Your task to perform on an android device: What's on my calendar today? Image 0: 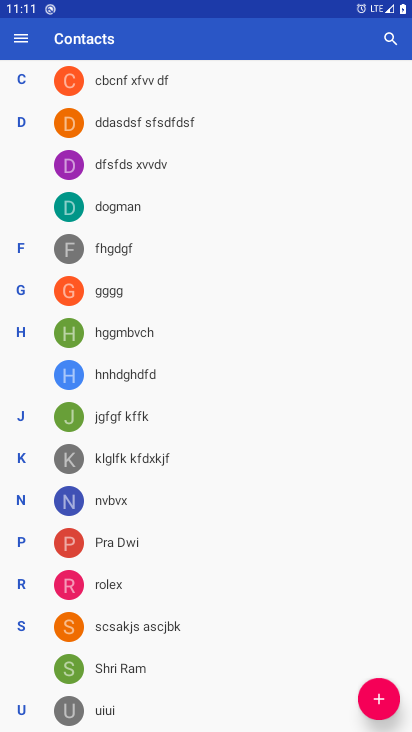
Step 0: press home button
Your task to perform on an android device: What's on my calendar today? Image 1: 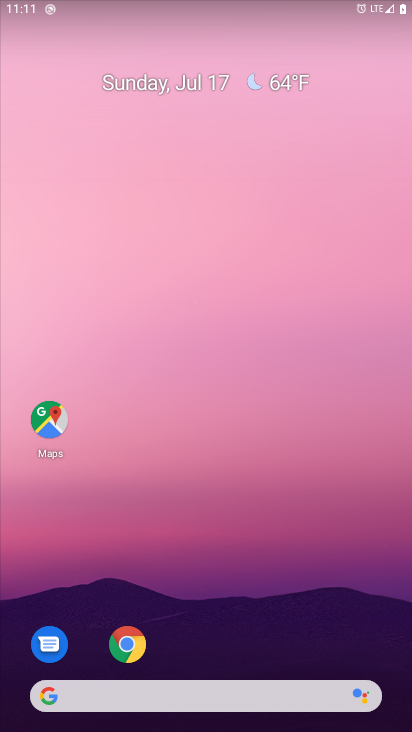
Step 1: drag from (287, 652) to (250, 157)
Your task to perform on an android device: What's on my calendar today? Image 2: 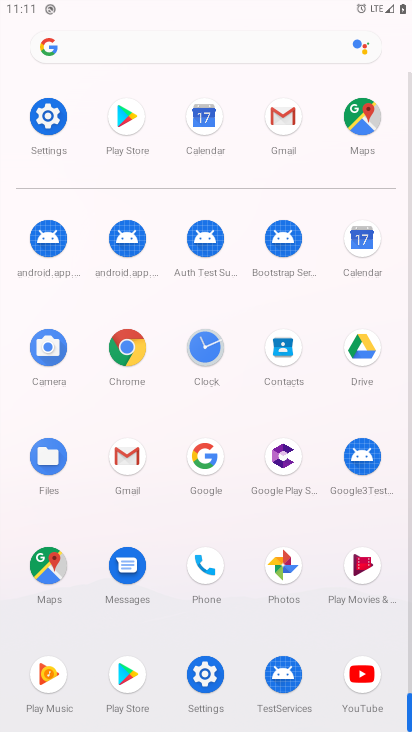
Step 2: click (365, 242)
Your task to perform on an android device: What's on my calendar today? Image 3: 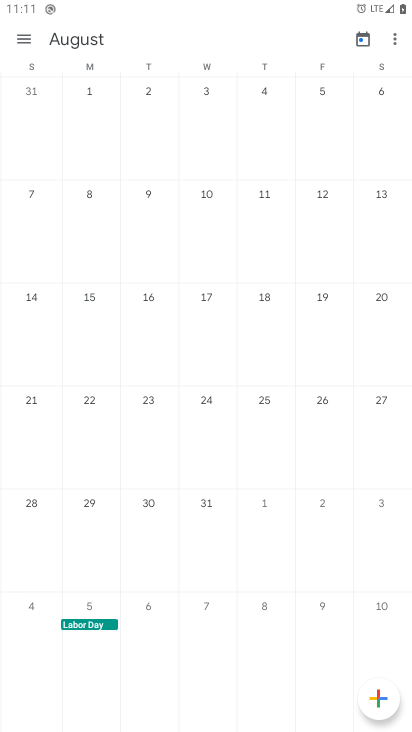
Step 3: drag from (99, 152) to (411, 187)
Your task to perform on an android device: What's on my calendar today? Image 4: 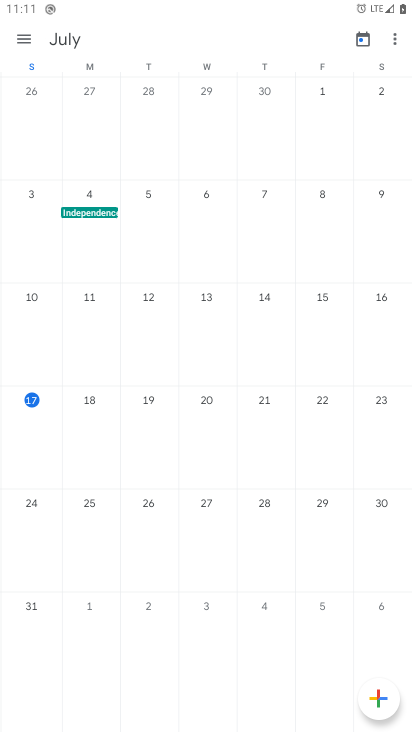
Step 4: click (84, 402)
Your task to perform on an android device: What's on my calendar today? Image 5: 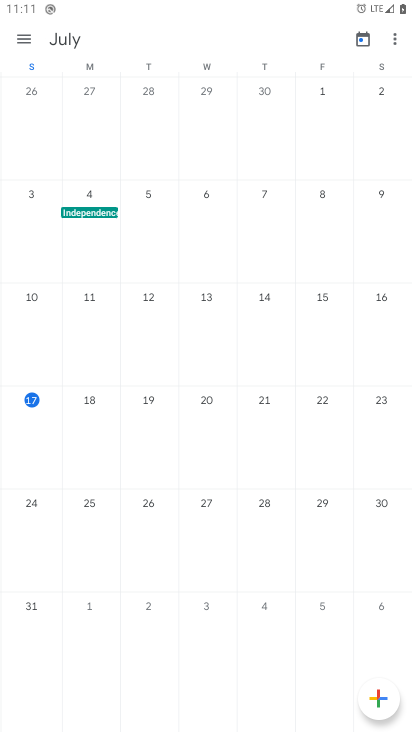
Step 5: click (84, 402)
Your task to perform on an android device: What's on my calendar today? Image 6: 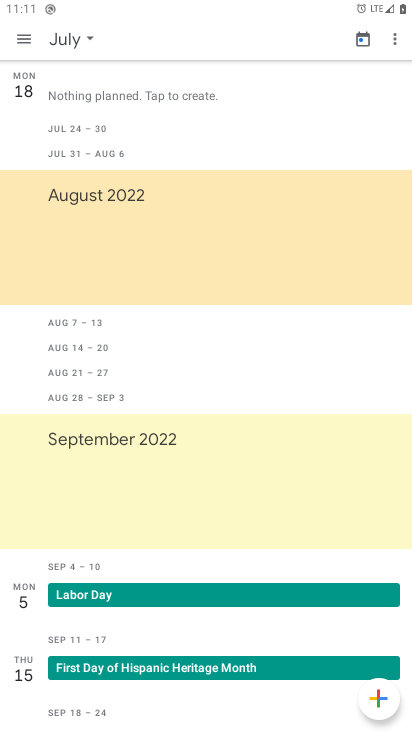
Step 6: task complete